Your task to perform on an android device: Open battery settings Image 0: 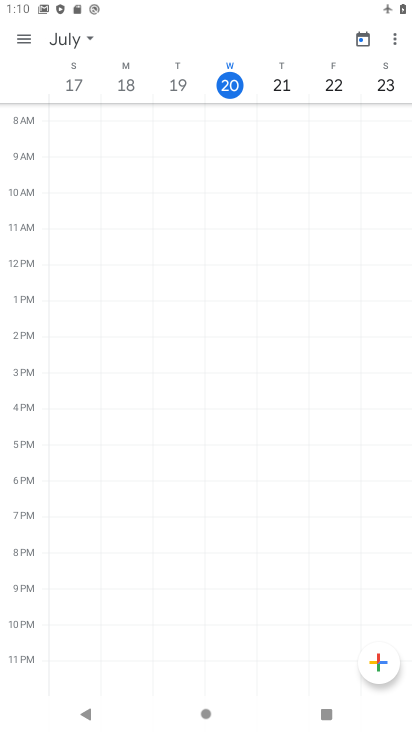
Step 0: press home button
Your task to perform on an android device: Open battery settings Image 1: 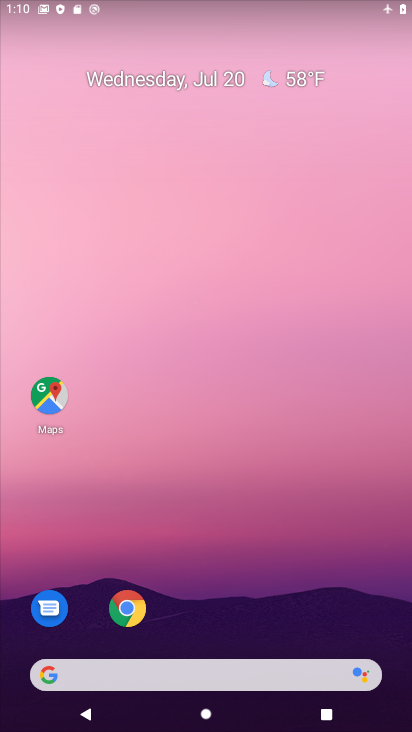
Step 1: drag from (230, 720) to (225, 257)
Your task to perform on an android device: Open battery settings Image 2: 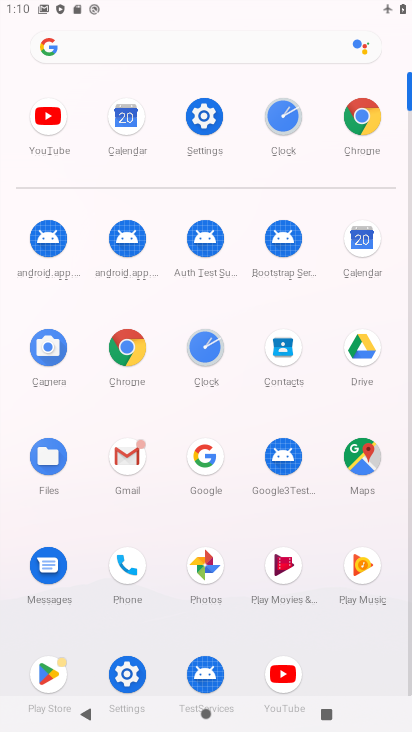
Step 2: click (204, 114)
Your task to perform on an android device: Open battery settings Image 3: 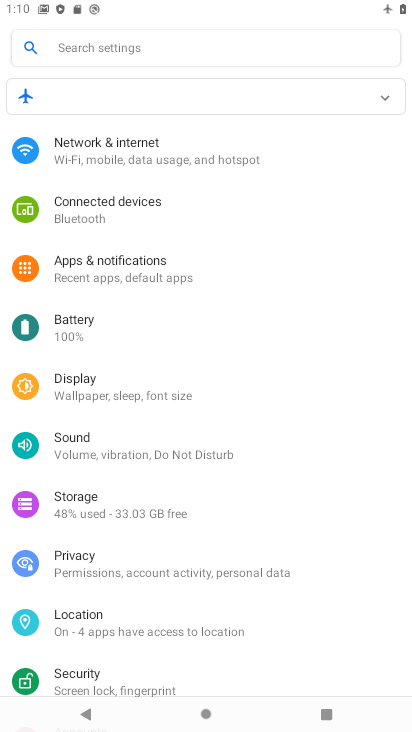
Step 3: click (63, 328)
Your task to perform on an android device: Open battery settings Image 4: 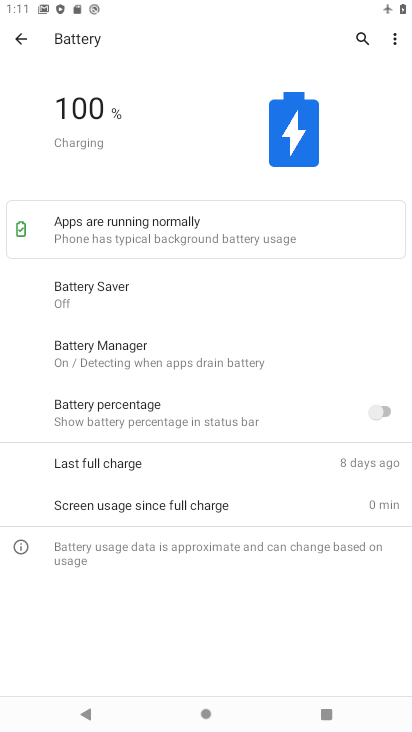
Step 4: task complete